Your task to perform on an android device: check android version Image 0: 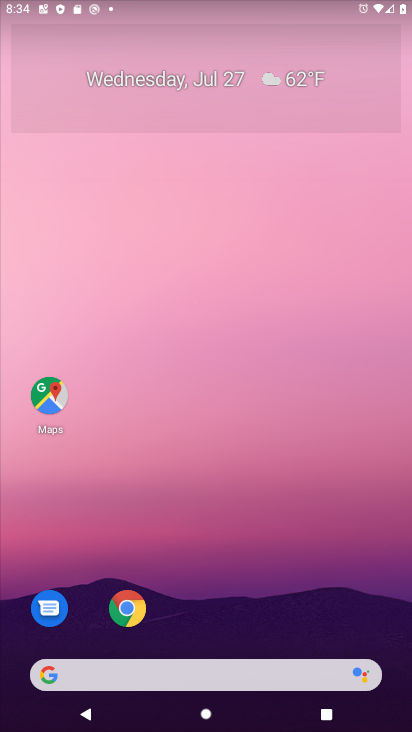
Step 0: drag from (282, 522) to (365, 179)
Your task to perform on an android device: check android version Image 1: 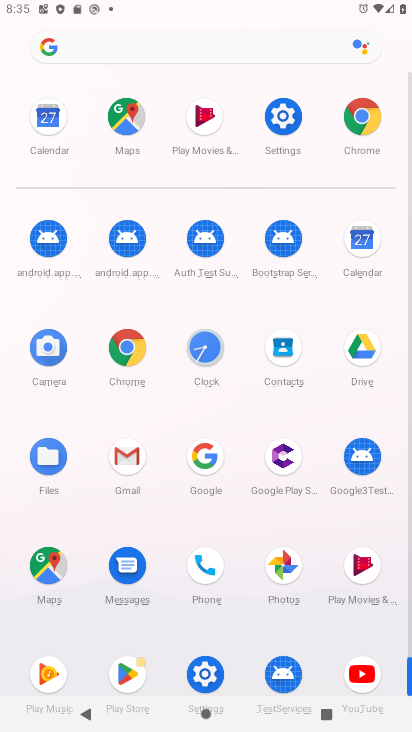
Step 1: click (281, 108)
Your task to perform on an android device: check android version Image 2: 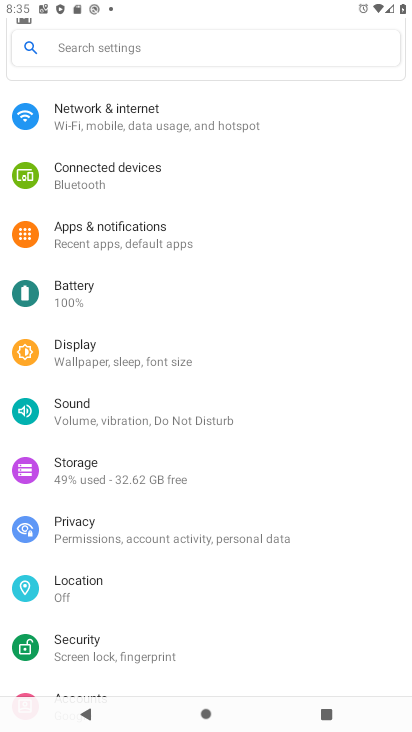
Step 2: drag from (176, 606) to (197, 201)
Your task to perform on an android device: check android version Image 3: 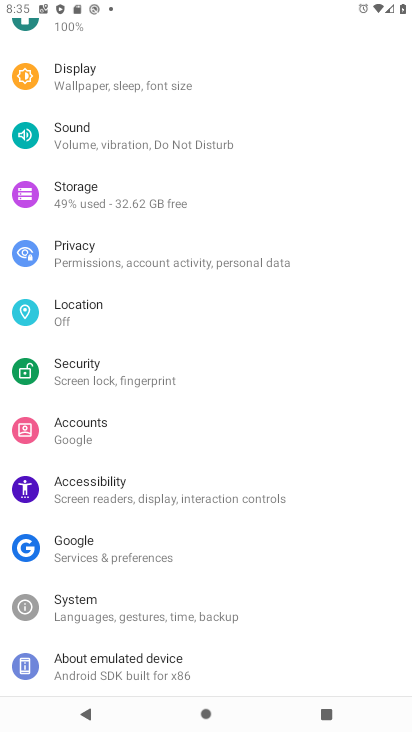
Step 3: click (110, 668)
Your task to perform on an android device: check android version Image 4: 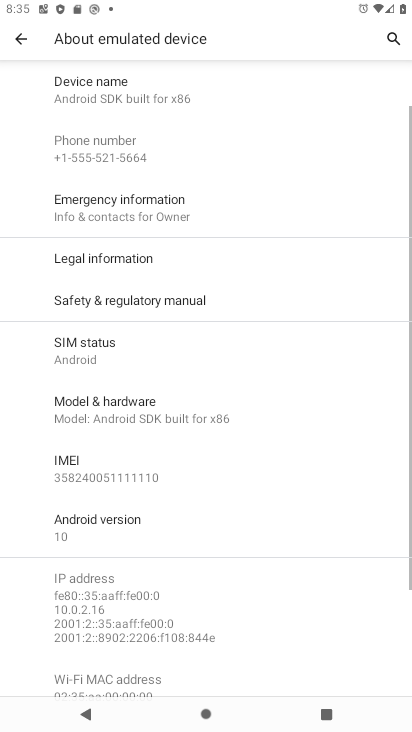
Step 4: task complete